Your task to perform on an android device: Open display settings Image 0: 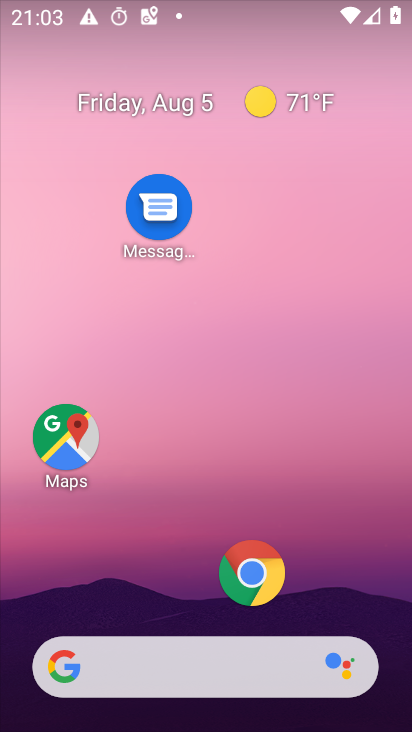
Step 0: drag from (198, 595) to (241, 92)
Your task to perform on an android device: Open display settings Image 1: 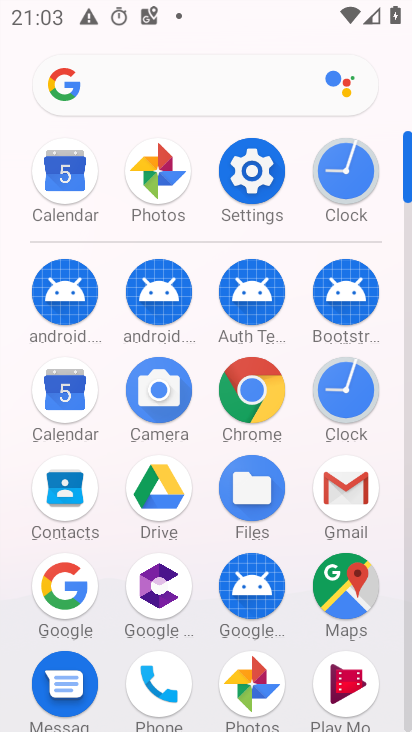
Step 1: click (254, 161)
Your task to perform on an android device: Open display settings Image 2: 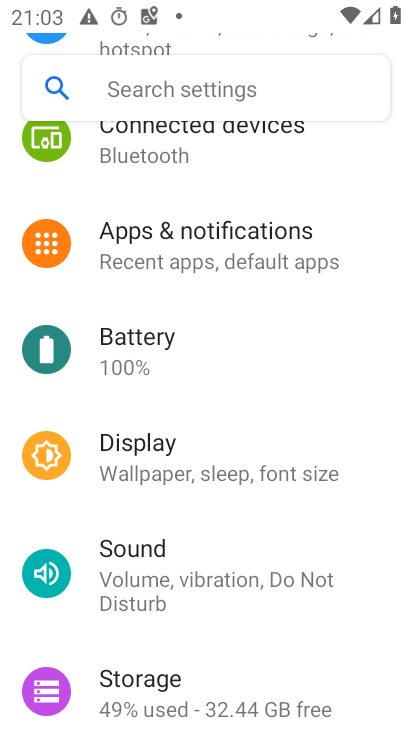
Step 2: click (174, 457)
Your task to perform on an android device: Open display settings Image 3: 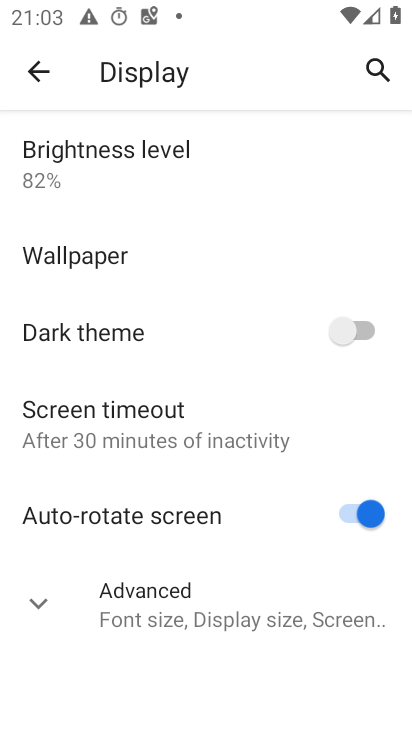
Step 3: click (36, 602)
Your task to perform on an android device: Open display settings Image 4: 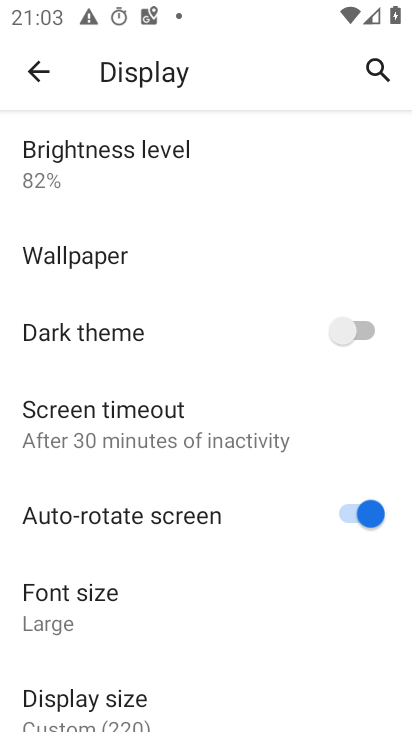
Step 4: task complete